Your task to perform on an android device: Go to battery settings Image 0: 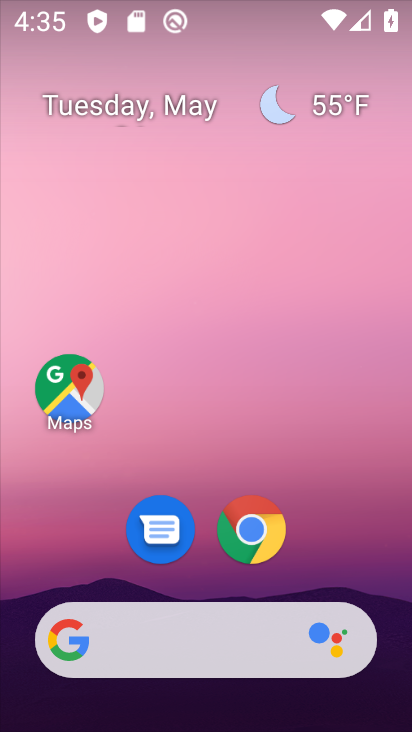
Step 0: drag from (299, 712) to (143, 0)
Your task to perform on an android device: Go to battery settings Image 1: 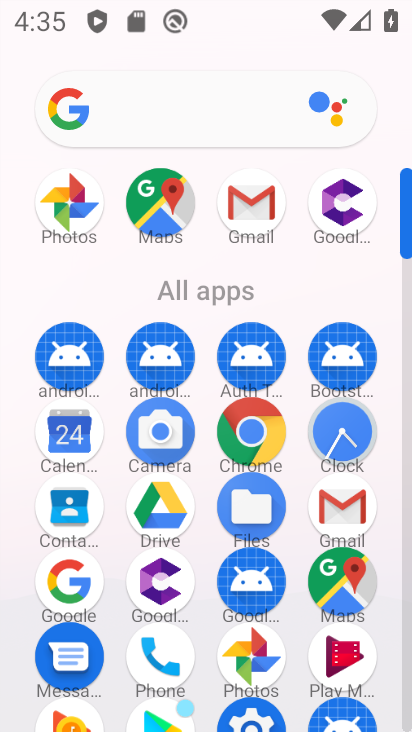
Step 1: drag from (214, 551) to (198, 293)
Your task to perform on an android device: Go to battery settings Image 2: 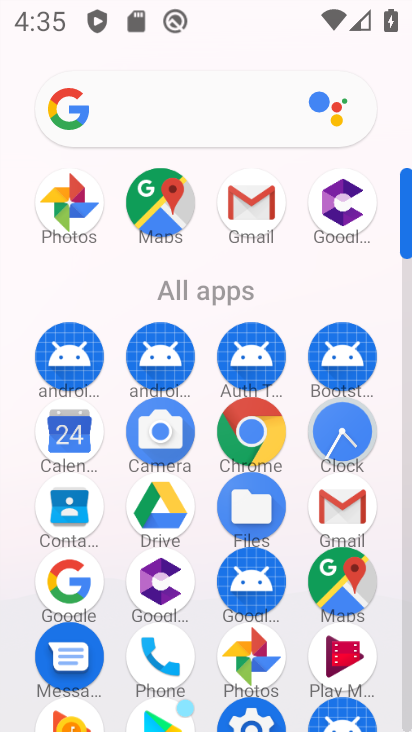
Step 2: drag from (222, 451) to (217, 275)
Your task to perform on an android device: Go to battery settings Image 3: 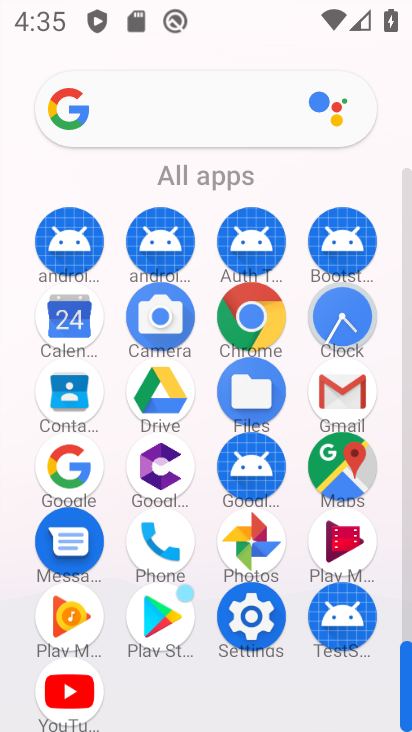
Step 3: click (242, 621)
Your task to perform on an android device: Go to battery settings Image 4: 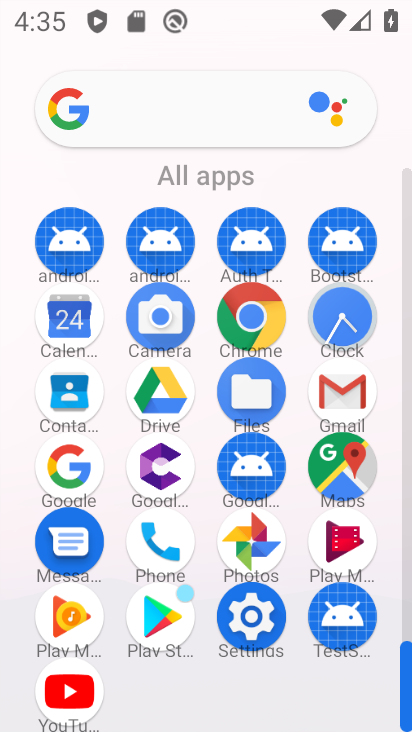
Step 4: click (243, 620)
Your task to perform on an android device: Go to battery settings Image 5: 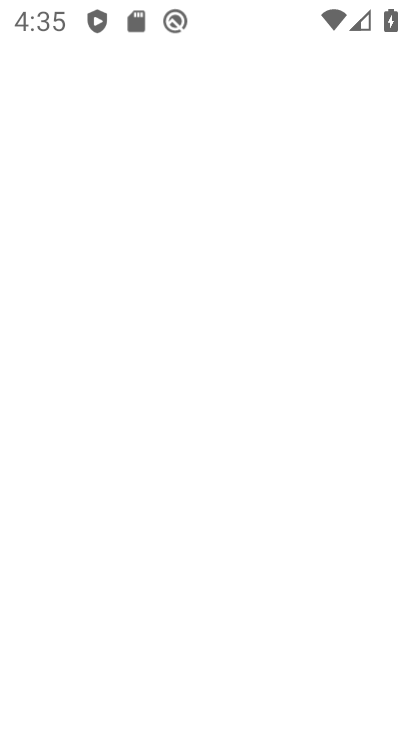
Step 5: click (242, 611)
Your task to perform on an android device: Go to battery settings Image 6: 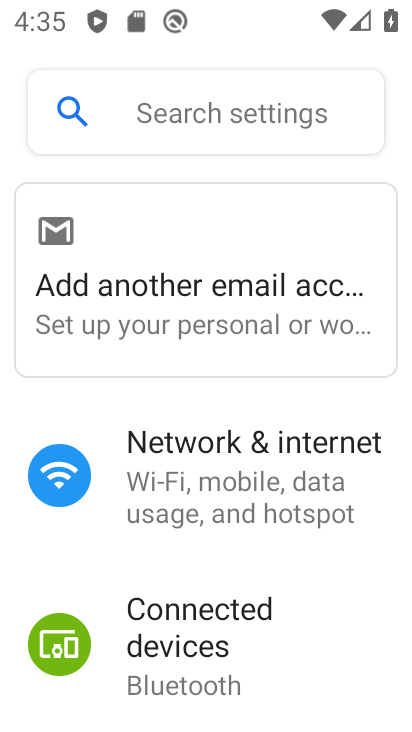
Step 6: drag from (193, 565) to (180, 261)
Your task to perform on an android device: Go to battery settings Image 7: 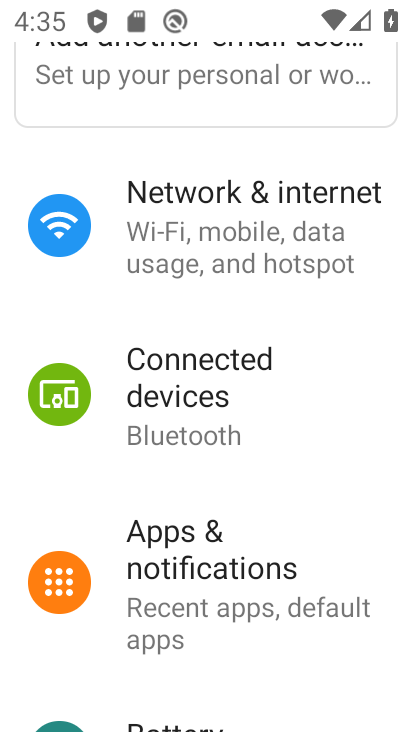
Step 7: drag from (204, 505) to (218, 188)
Your task to perform on an android device: Go to battery settings Image 8: 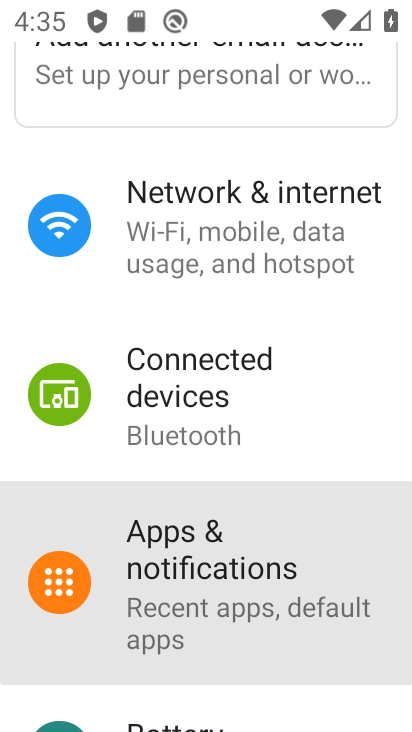
Step 8: drag from (242, 582) to (240, 242)
Your task to perform on an android device: Go to battery settings Image 9: 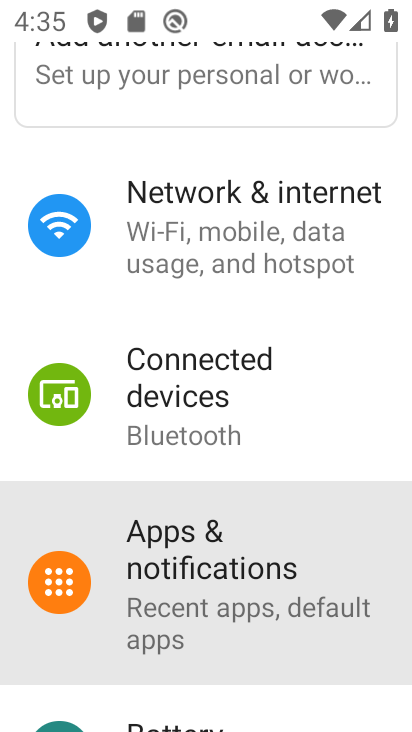
Step 9: drag from (311, 442) to (336, 189)
Your task to perform on an android device: Go to battery settings Image 10: 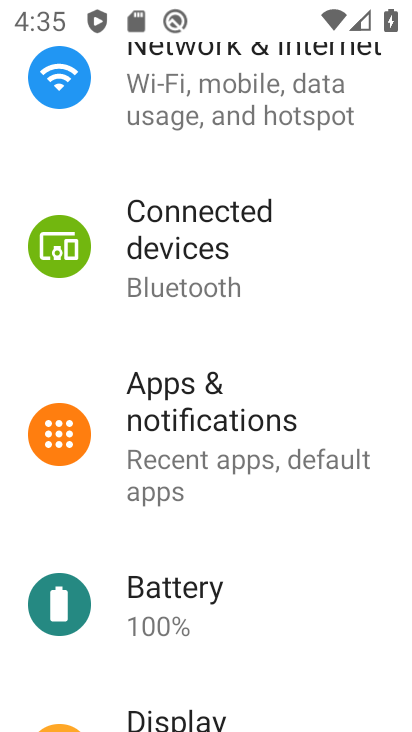
Step 10: drag from (343, 531) to (341, 186)
Your task to perform on an android device: Go to battery settings Image 11: 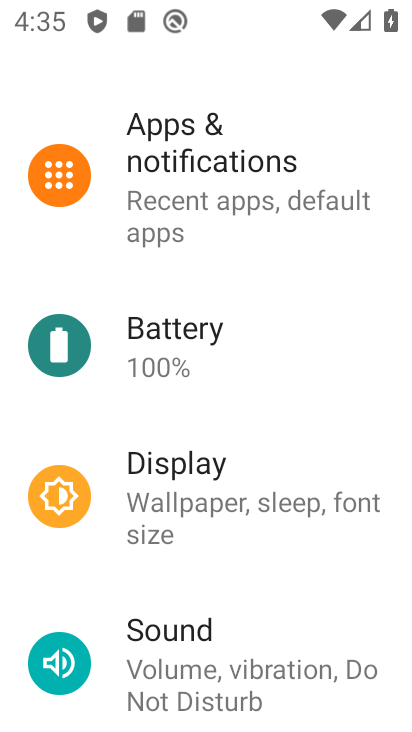
Step 11: drag from (195, 559) to (193, 155)
Your task to perform on an android device: Go to battery settings Image 12: 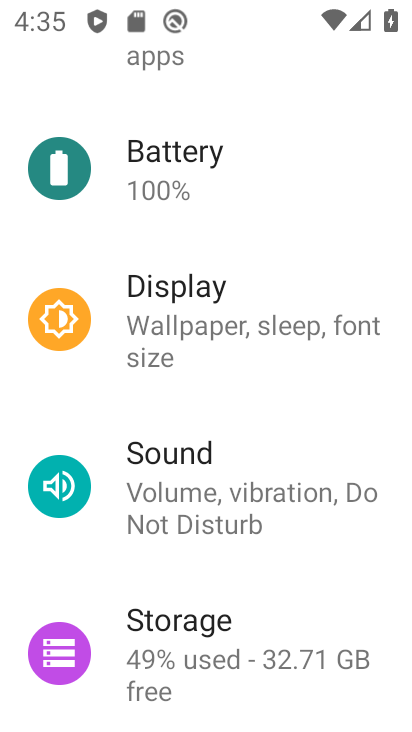
Step 12: click (141, 347)
Your task to perform on an android device: Go to battery settings Image 13: 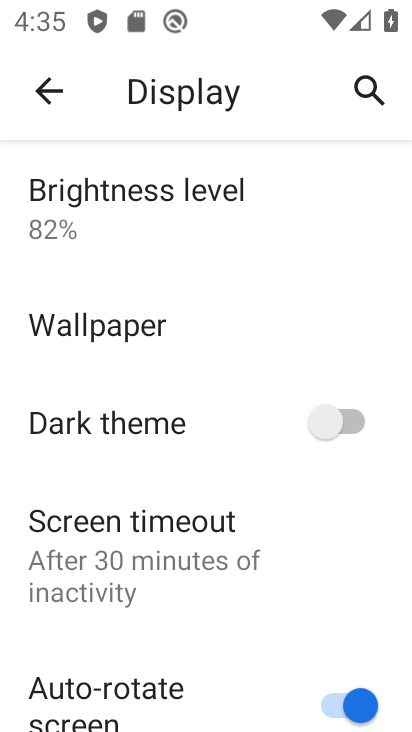
Step 13: drag from (133, 480) to (118, 139)
Your task to perform on an android device: Go to battery settings Image 14: 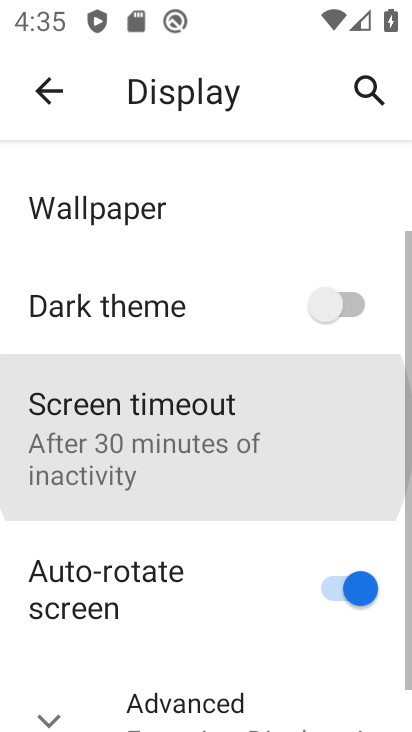
Step 14: drag from (120, 433) to (120, 149)
Your task to perform on an android device: Go to battery settings Image 15: 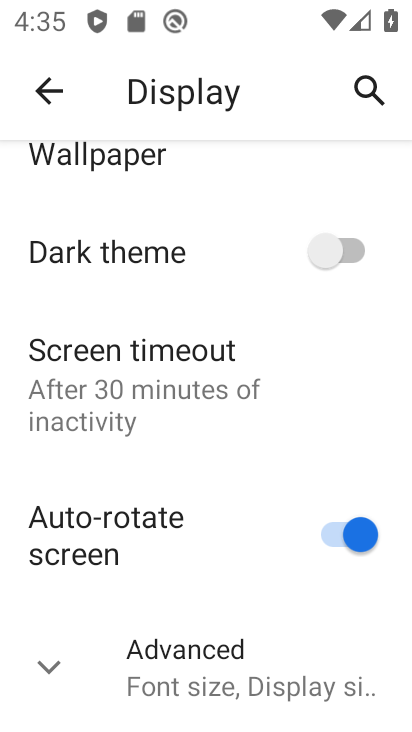
Step 15: drag from (186, 527) to (244, 325)
Your task to perform on an android device: Go to battery settings Image 16: 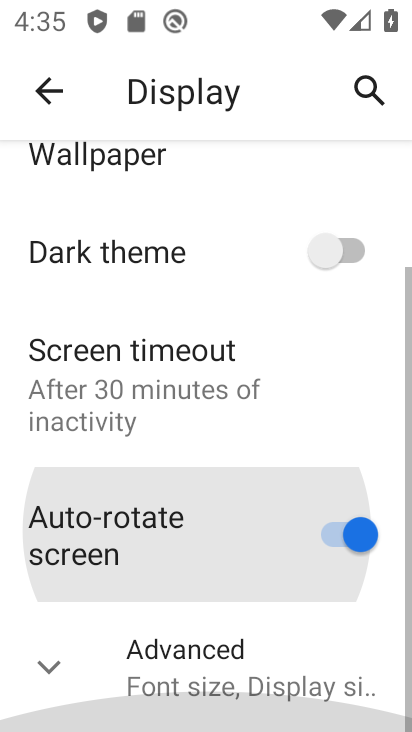
Step 16: drag from (237, 511) to (199, 177)
Your task to perform on an android device: Go to battery settings Image 17: 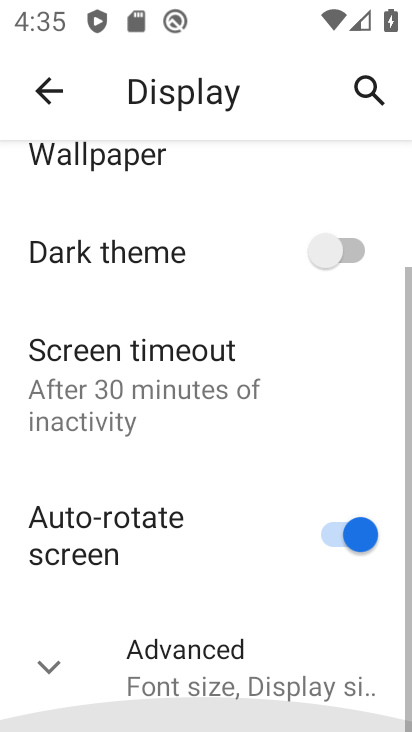
Step 17: drag from (206, 393) to (156, 42)
Your task to perform on an android device: Go to battery settings Image 18: 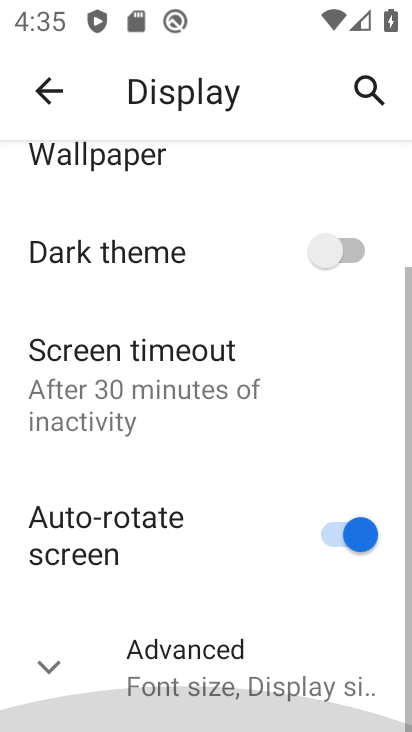
Step 18: drag from (158, 463) to (146, 144)
Your task to perform on an android device: Go to battery settings Image 19: 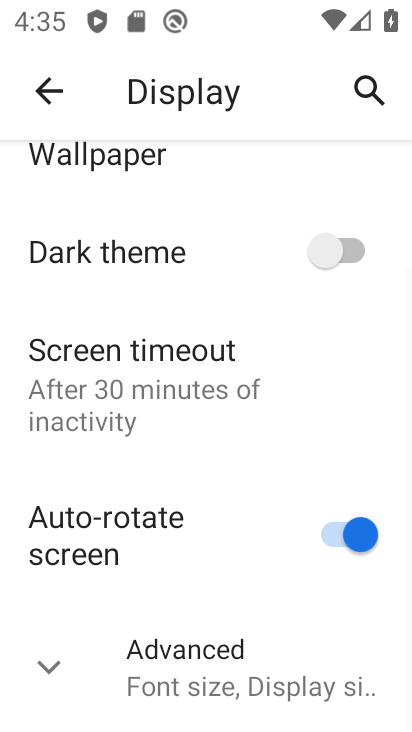
Step 19: drag from (195, 595) to (168, 282)
Your task to perform on an android device: Go to battery settings Image 20: 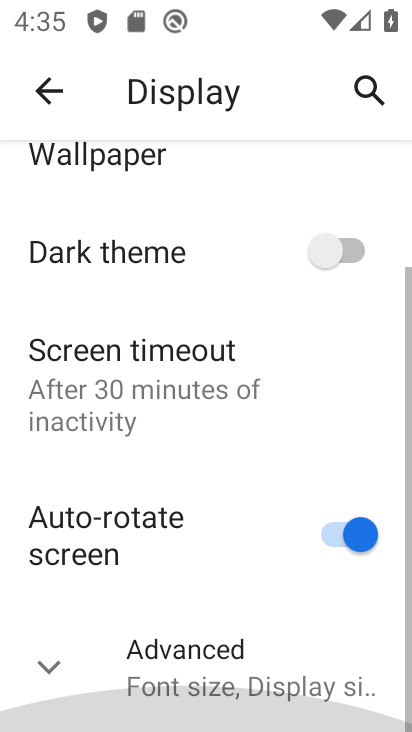
Step 20: drag from (145, 700) to (141, 400)
Your task to perform on an android device: Go to battery settings Image 21: 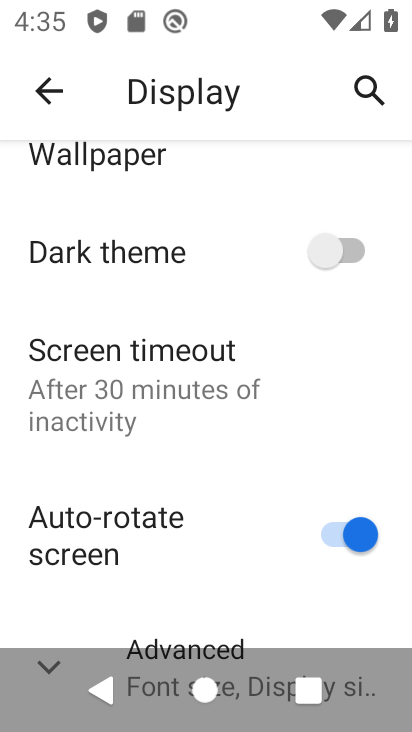
Step 21: click (39, 88)
Your task to perform on an android device: Go to battery settings Image 22: 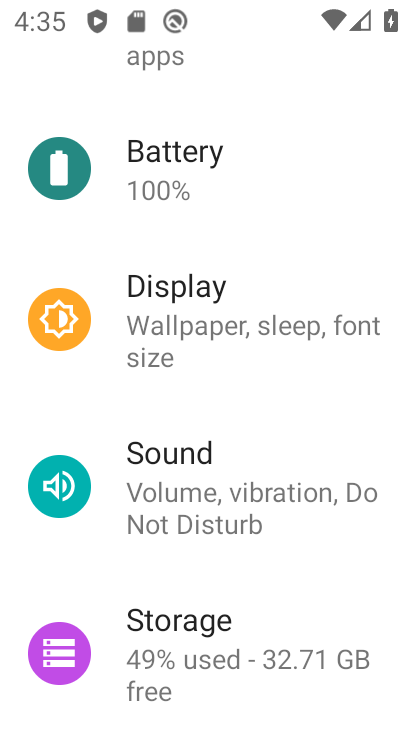
Step 22: drag from (208, 439) to (220, 614)
Your task to perform on an android device: Go to battery settings Image 23: 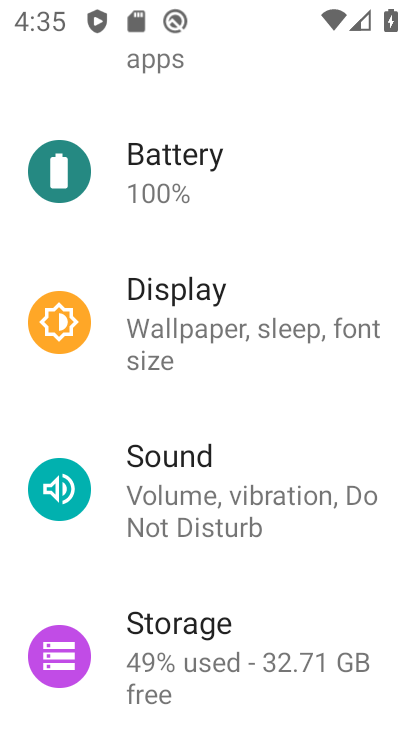
Step 23: drag from (194, 393) to (196, 689)
Your task to perform on an android device: Go to battery settings Image 24: 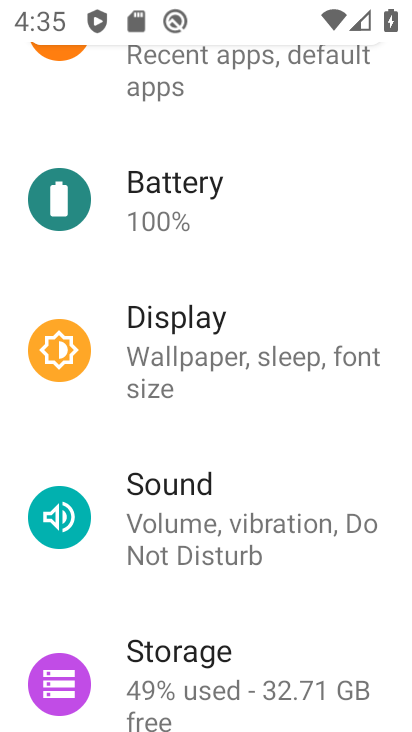
Step 24: drag from (187, 302) to (248, 610)
Your task to perform on an android device: Go to battery settings Image 25: 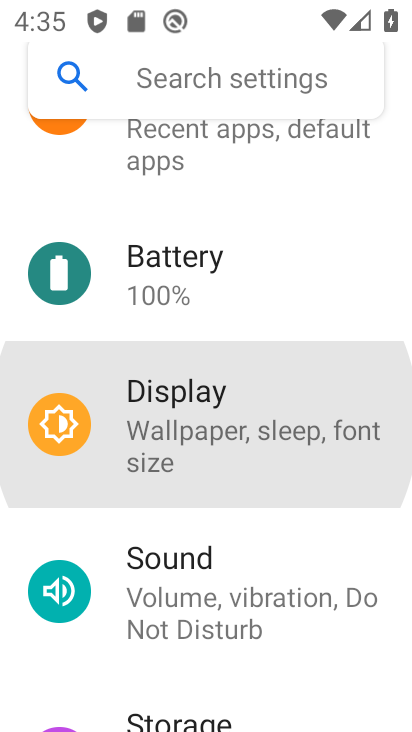
Step 25: drag from (226, 246) to (239, 638)
Your task to perform on an android device: Go to battery settings Image 26: 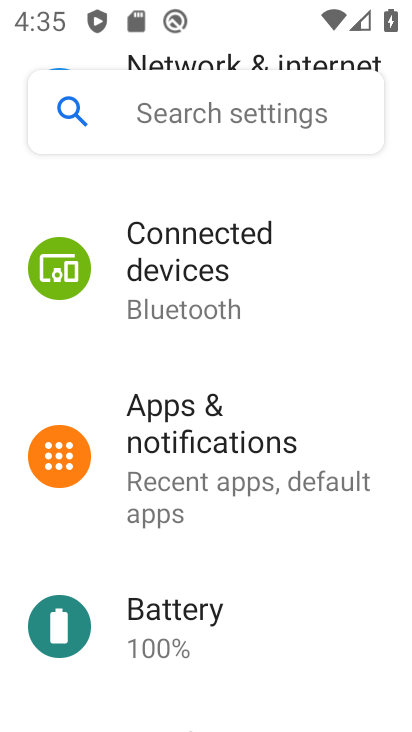
Step 26: click (167, 272)
Your task to perform on an android device: Go to battery settings Image 27: 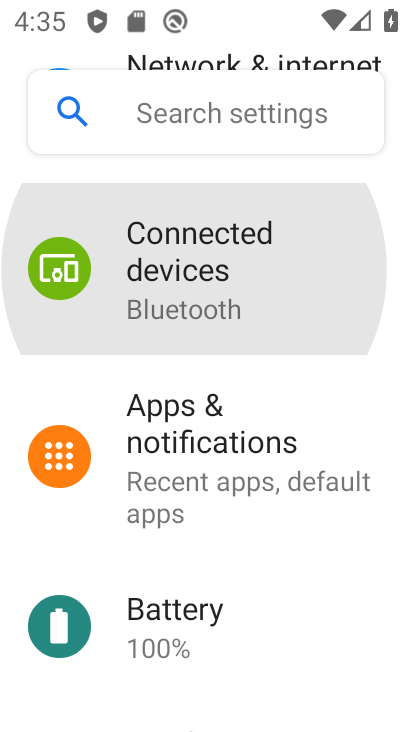
Step 27: click (167, 272)
Your task to perform on an android device: Go to battery settings Image 28: 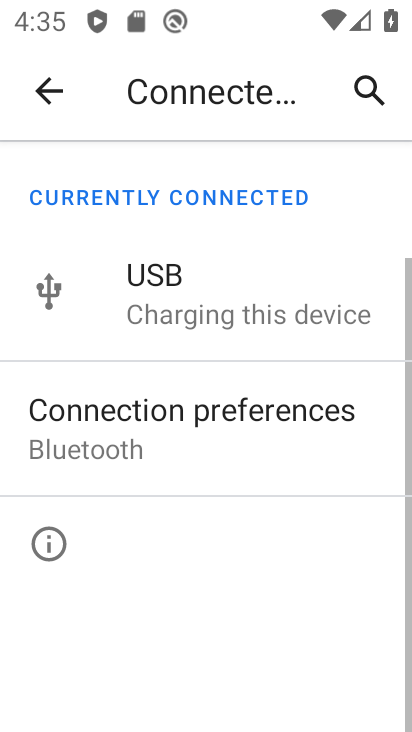
Step 28: click (64, 89)
Your task to perform on an android device: Go to battery settings Image 29: 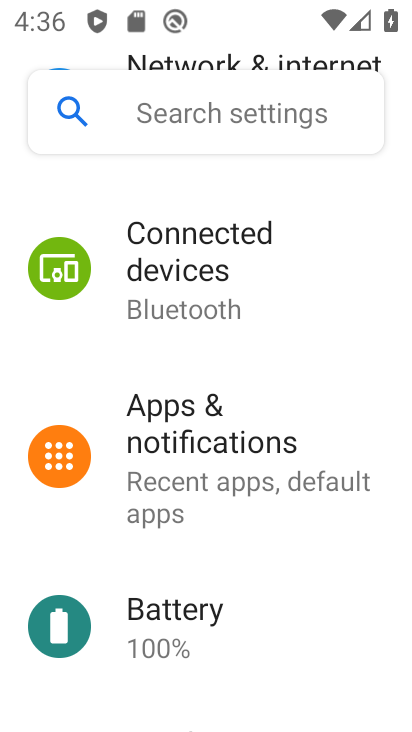
Step 29: click (151, 614)
Your task to perform on an android device: Go to battery settings Image 30: 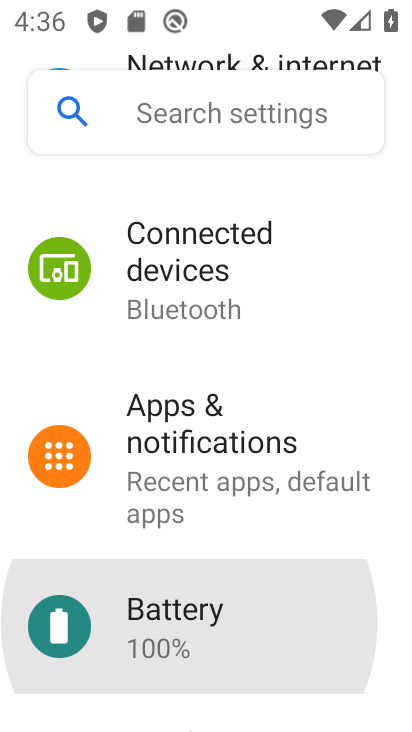
Step 30: click (150, 616)
Your task to perform on an android device: Go to battery settings Image 31: 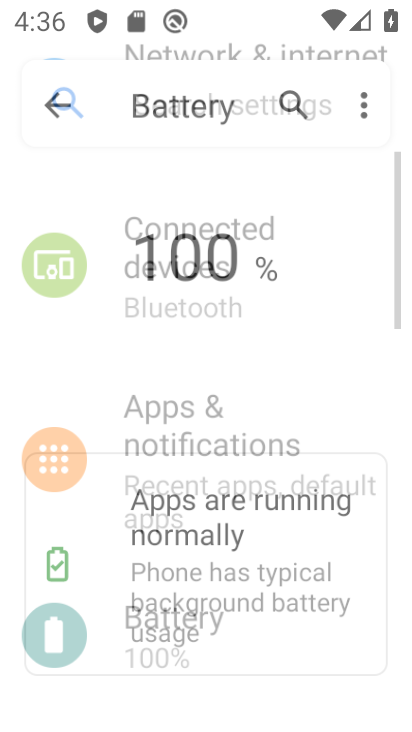
Step 31: click (150, 616)
Your task to perform on an android device: Go to battery settings Image 32: 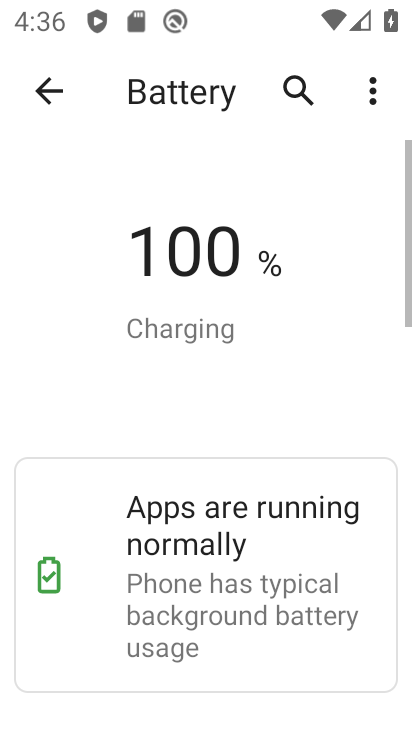
Step 32: task complete